Your task to perform on an android device: open sync settings in chrome Image 0: 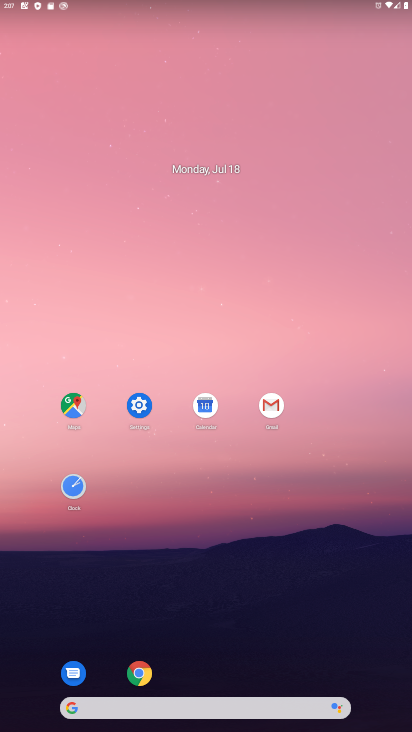
Step 0: click (140, 669)
Your task to perform on an android device: open sync settings in chrome Image 1: 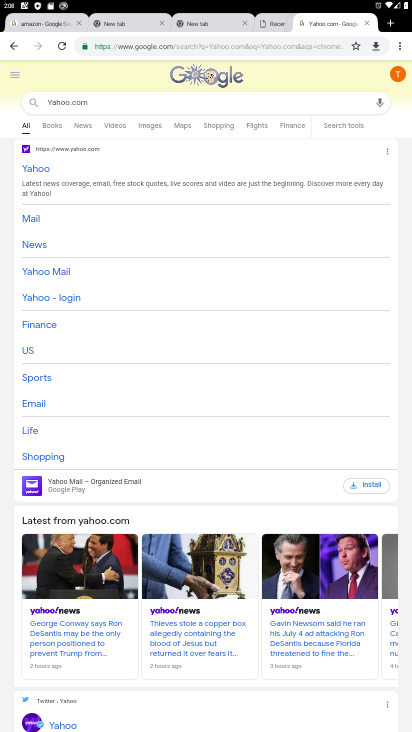
Step 1: click (399, 44)
Your task to perform on an android device: open sync settings in chrome Image 2: 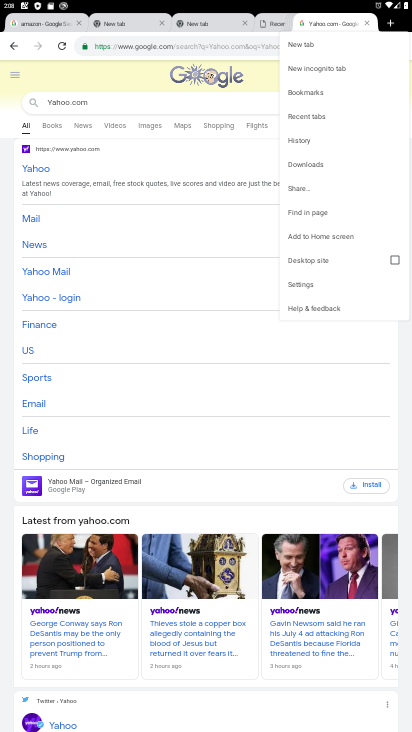
Step 2: click (299, 282)
Your task to perform on an android device: open sync settings in chrome Image 3: 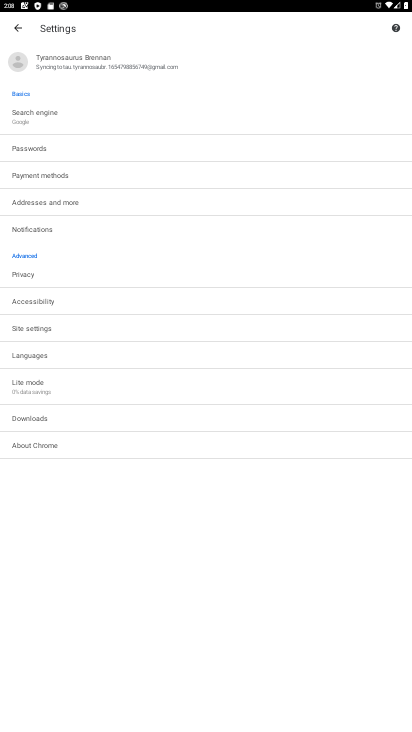
Step 3: click (45, 330)
Your task to perform on an android device: open sync settings in chrome Image 4: 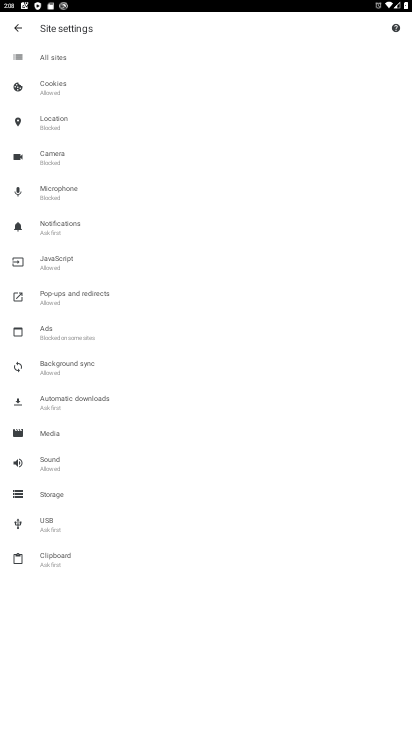
Step 4: click (57, 362)
Your task to perform on an android device: open sync settings in chrome Image 5: 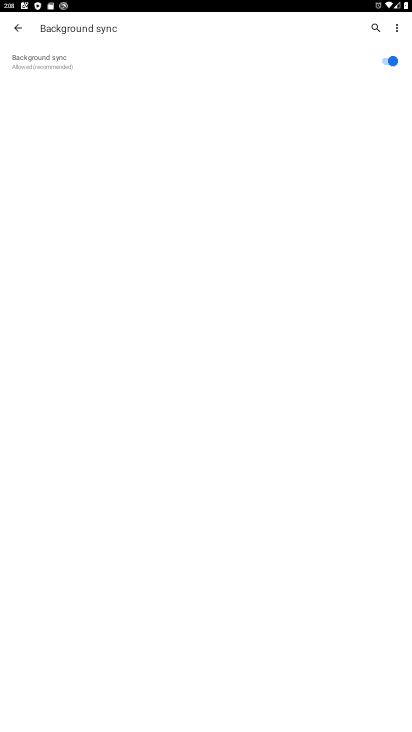
Step 5: task complete